Your task to perform on an android device: turn on notifications settings in the gmail app Image 0: 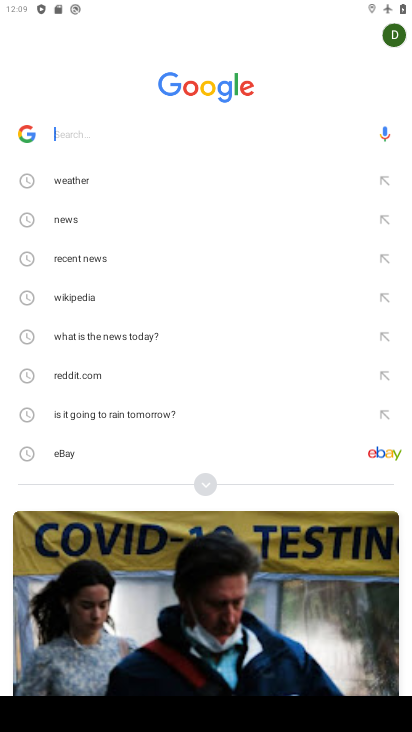
Step 0: press home button
Your task to perform on an android device: turn on notifications settings in the gmail app Image 1: 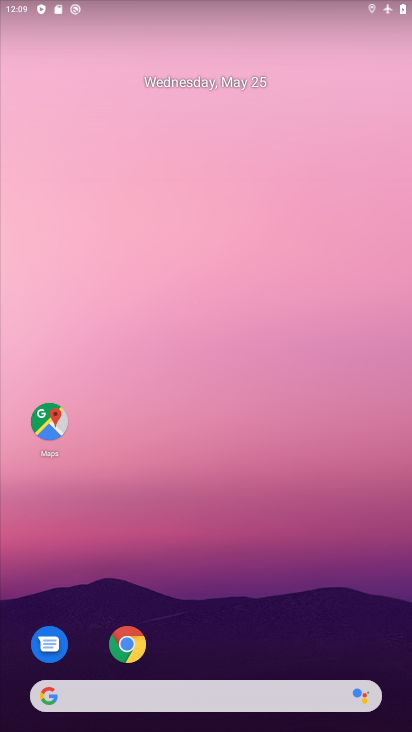
Step 1: drag from (265, 546) to (204, 124)
Your task to perform on an android device: turn on notifications settings in the gmail app Image 2: 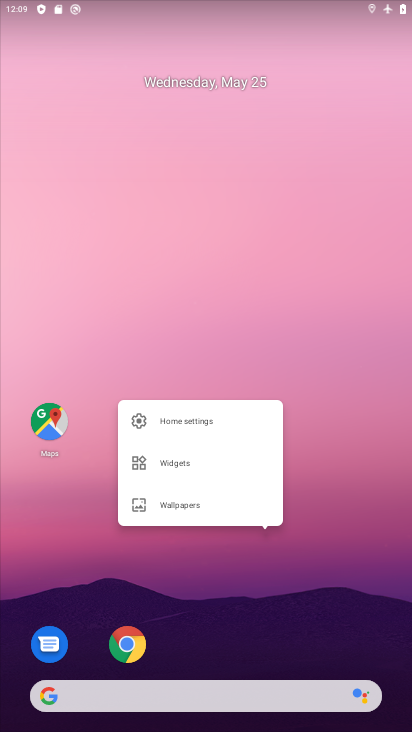
Step 2: click (336, 591)
Your task to perform on an android device: turn on notifications settings in the gmail app Image 3: 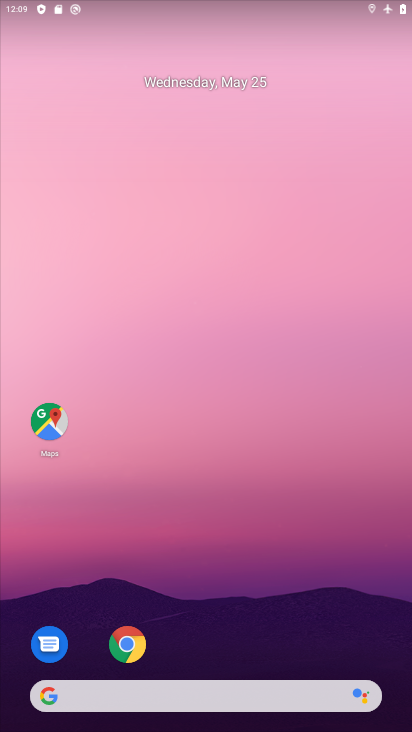
Step 3: drag from (200, 585) to (189, 27)
Your task to perform on an android device: turn on notifications settings in the gmail app Image 4: 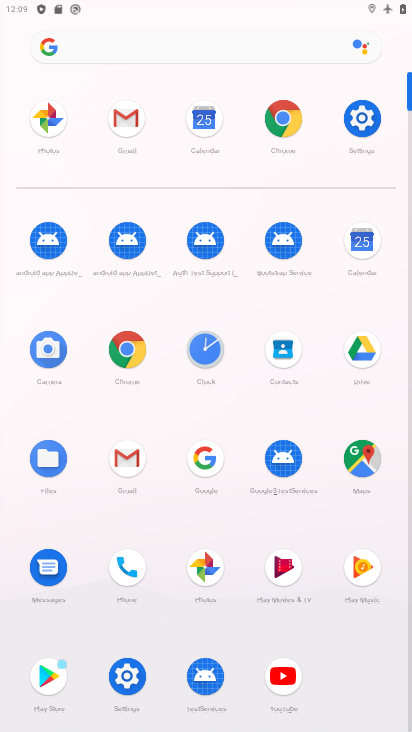
Step 4: click (125, 458)
Your task to perform on an android device: turn on notifications settings in the gmail app Image 5: 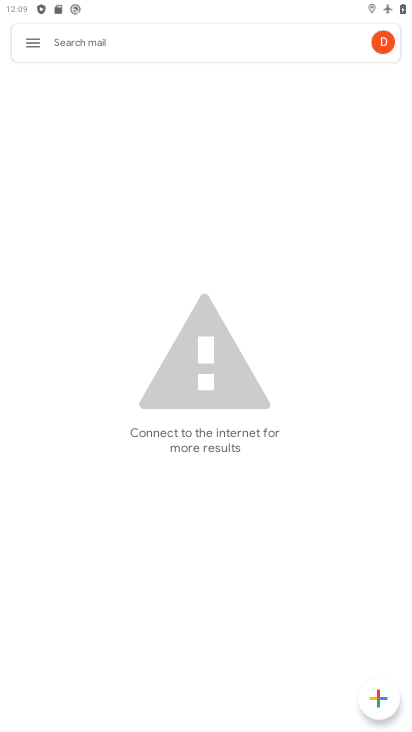
Step 5: click (31, 37)
Your task to perform on an android device: turn on notifications settings in the gmail app Image 6: 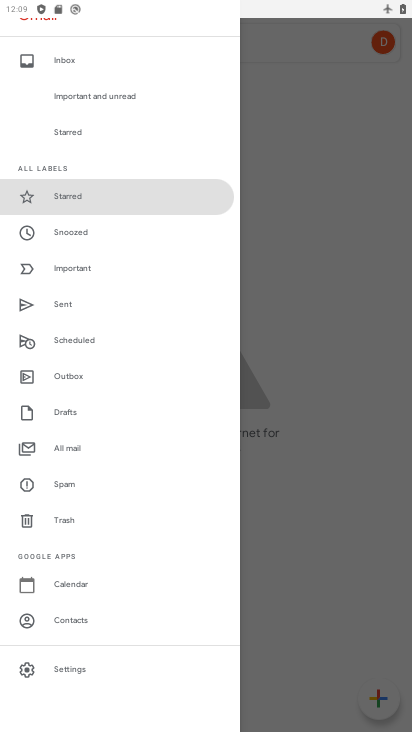
Step 6: click (66, 670)
Your task to perform on an android device: turn on notifications settings in the gmail app Image 7: 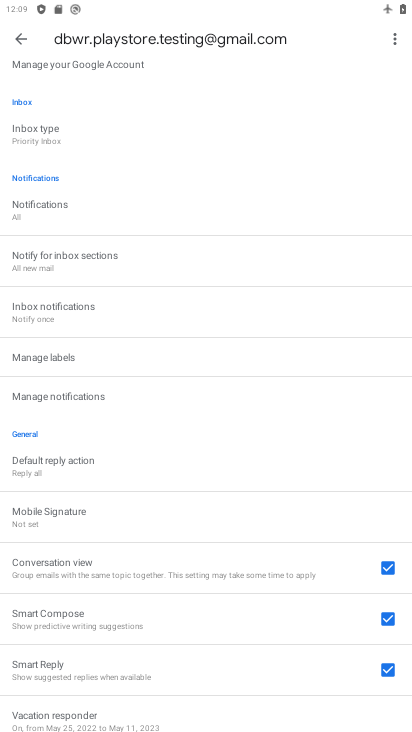
Step 7: click (19, 36)
Your task to perform on an android device: turn on notifications settings in the gmail app Image 8: 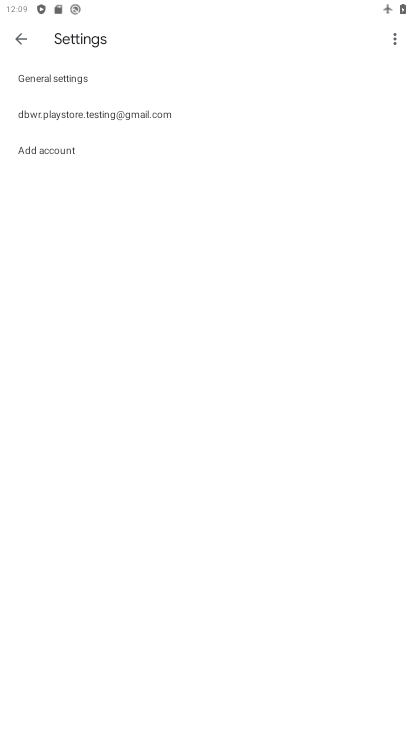
Step 8: click (59, 78)
Your task to perform on an android device: turn on notifications settings in the gmail app Image 9: 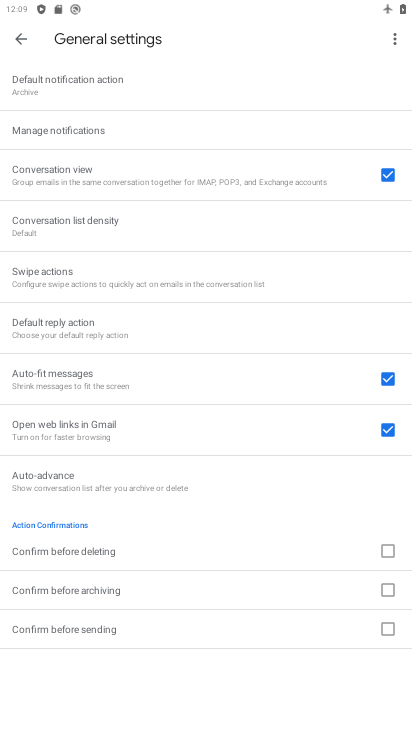
Step 9: click (61, 124)
Your task to perform on an android device: turn on notifications settings in the gmail app Image 10: 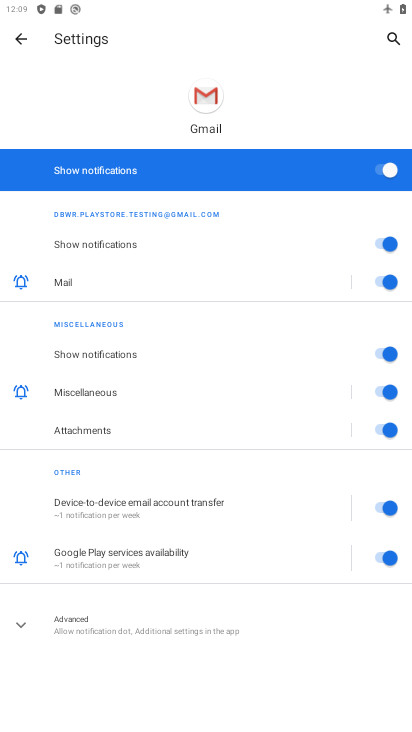
Step 10: task complete